Your task to perform on an android device: Check the settings for the Amazon Prime Video app Image 0: 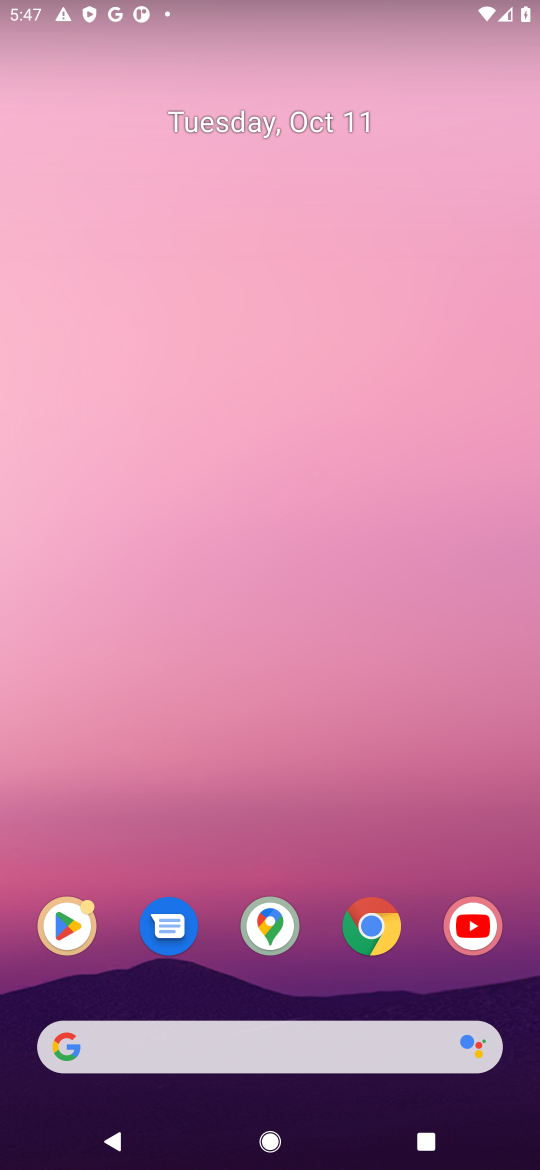
Step 0: click (149, 1054)
Your task to perform on an android device: Check the settings for the Amazon Prime Video app Image 1: 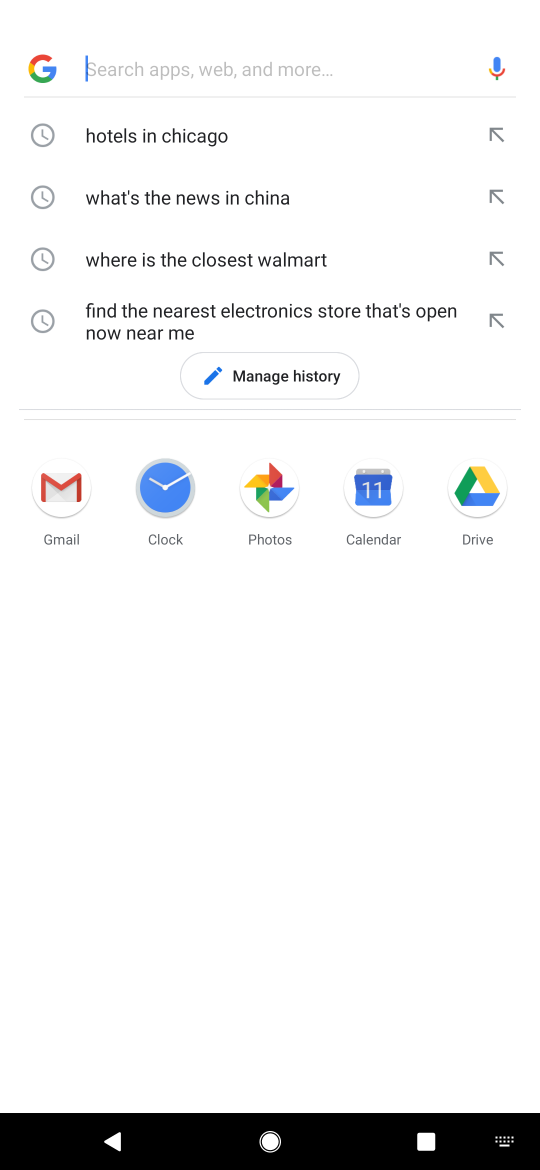
Step 1: press home button
Your task to perform on an android device: Check the settings for the Amazon Prime Video app Image 2: 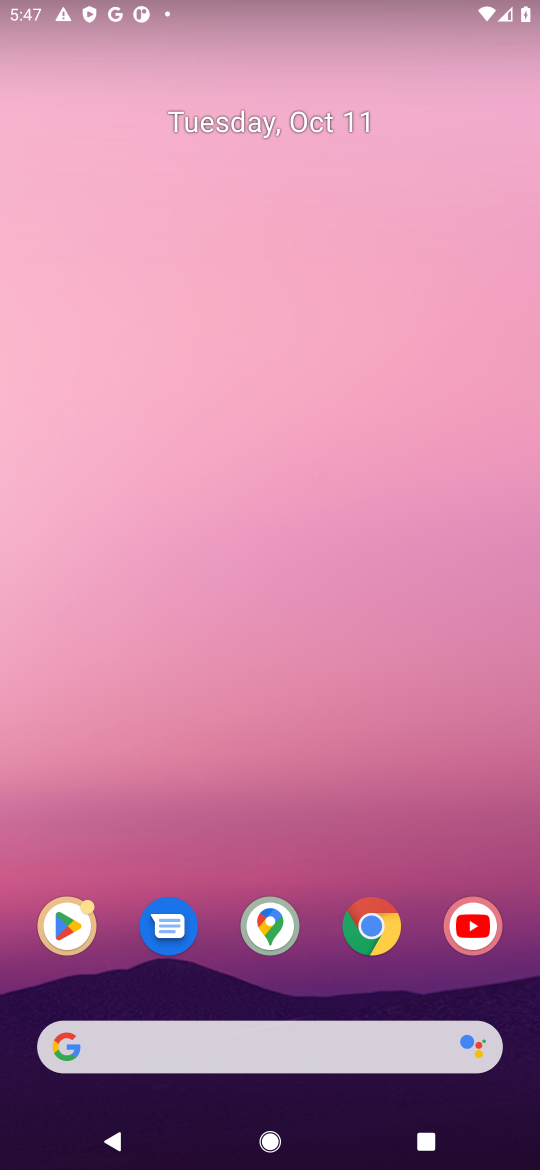
Step 2: drag from (391, 834) to (337, 32)
Your task to perform on an android device: Check the settings for the Amazon Prime Video app Image 3: 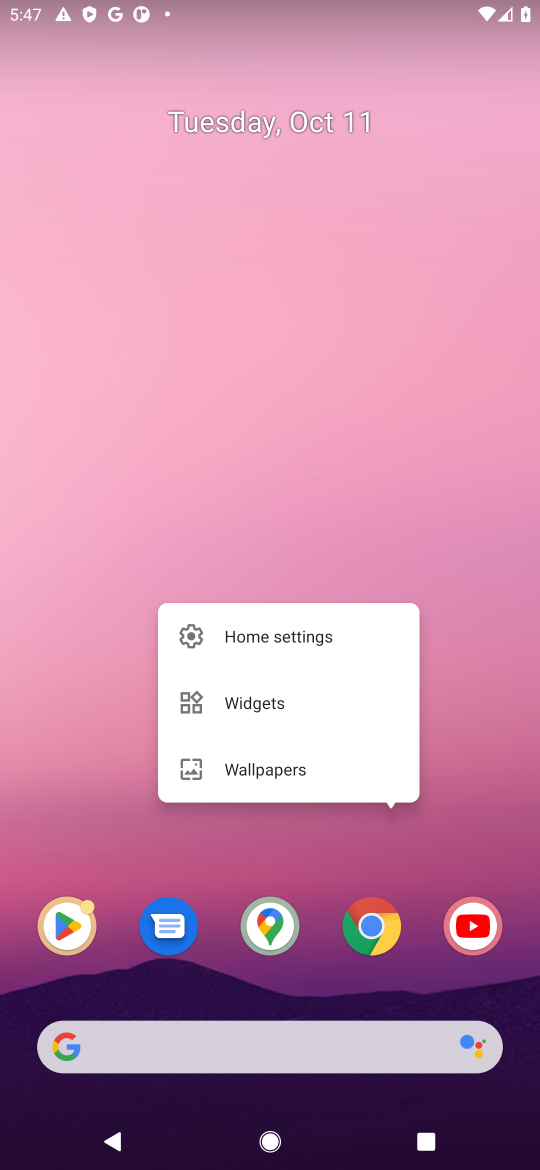
Step 3: click (264, 341)
Your task to perform on an android device: Check the settings for the Amazon Prime Video app Image 4: 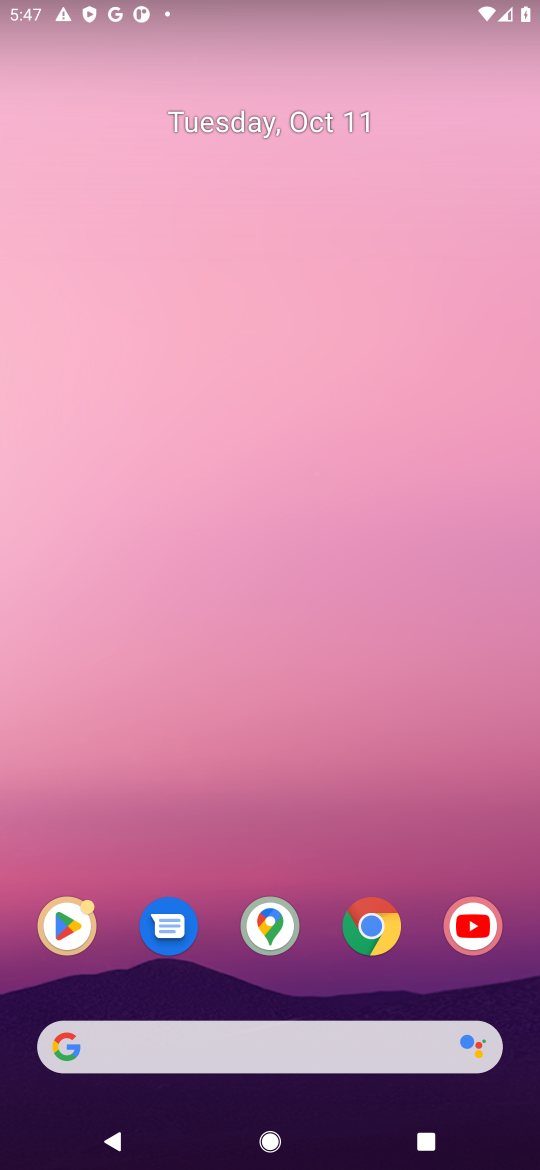
Step 4: task complete